Your task to perform on an android device: turn off picture-in-picture Image 0: 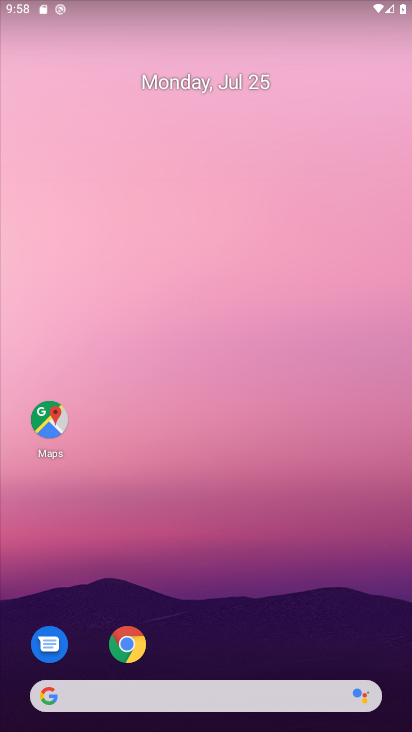
Step 0: click (120, 643)
Your task to perform on an android device: turn off picture-in-picture Image 1: 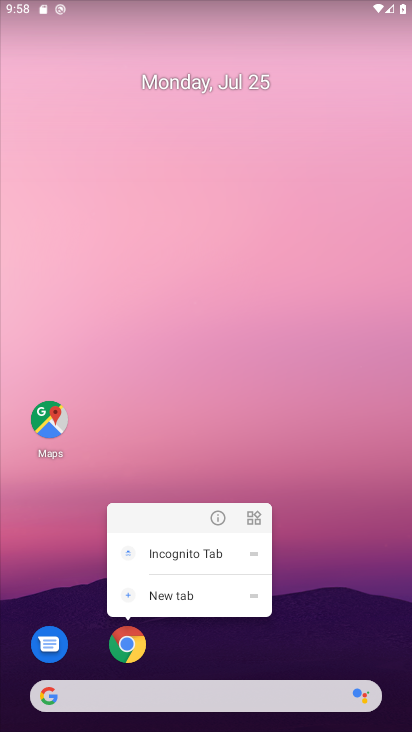
Step 1: click (215, 515)
Your task to perform on an android device: turn off picture-in-picture Image 2: 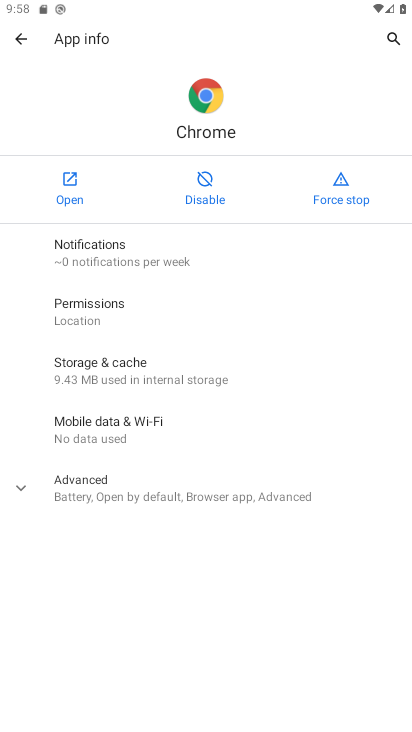
Step 2: click (25, 490)
Your task to perform on an android device: turn off picture-in-picture Image 3: 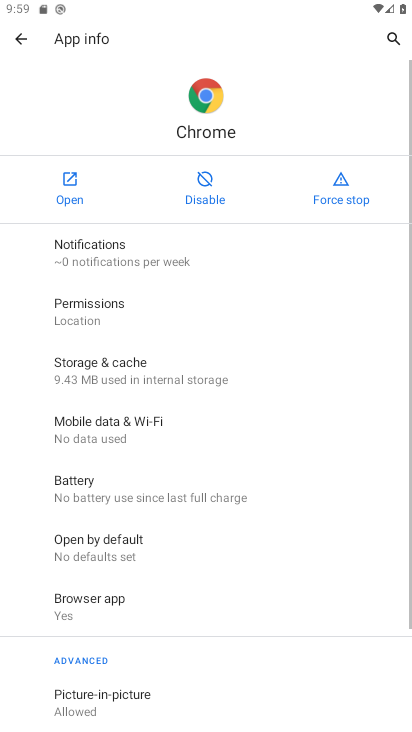
Step 3: drag from (297, 686) to (308, 405)
Your task to perform on an android device: turn off picture-in-picture Image 4: 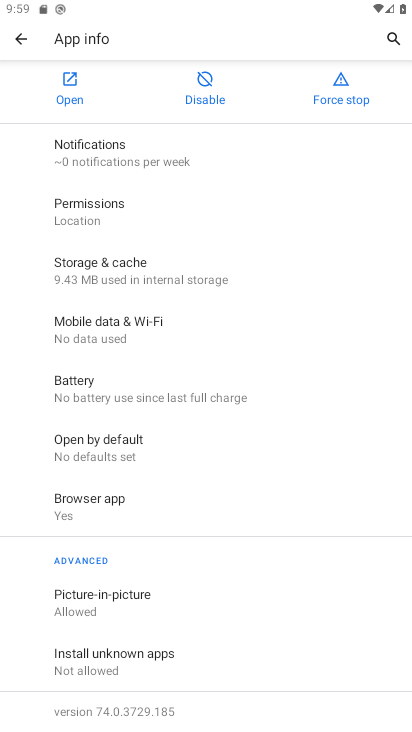
Step 4: click (89, 597)
Your task to perform on an android device: turn off picture-in-picture Image 5: 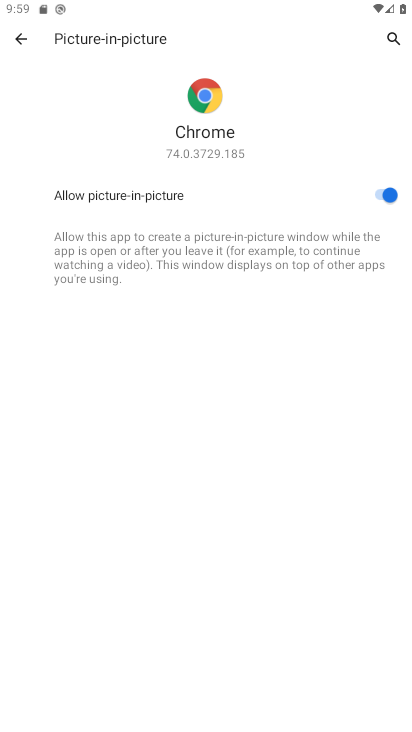
Step 5: click (380, 195)
Your task to perform on an android device: turn off picture-in-picture Image 6: 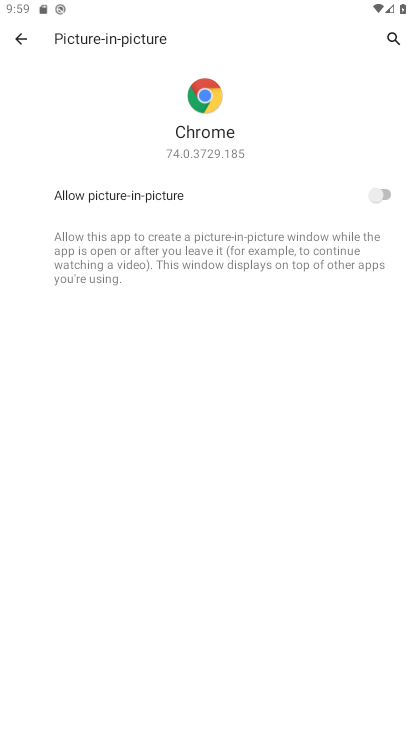
Step 6: task complete